Your task to perform on an android device: Add usb-a to the cart on target, then select checkout. Image 0: 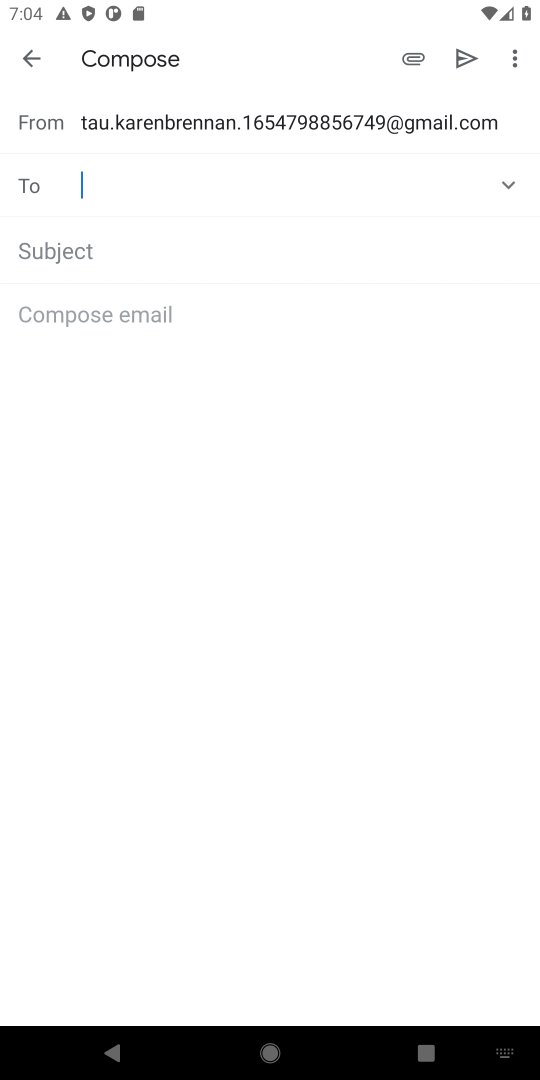
Step 0: press home button
Your task to perform on an android device: Add usb-a to the cart on target, then select checkout. Image 1: 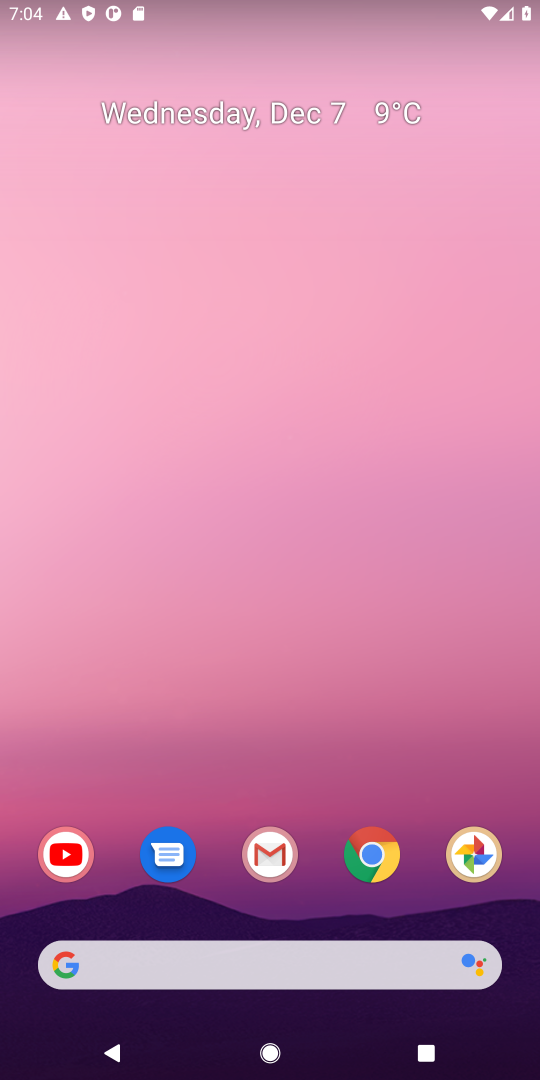
Step 1: click (199, 981)
Your task to perform on an android device: Add usb-a to the cart on target, then select checkout. Image 2: 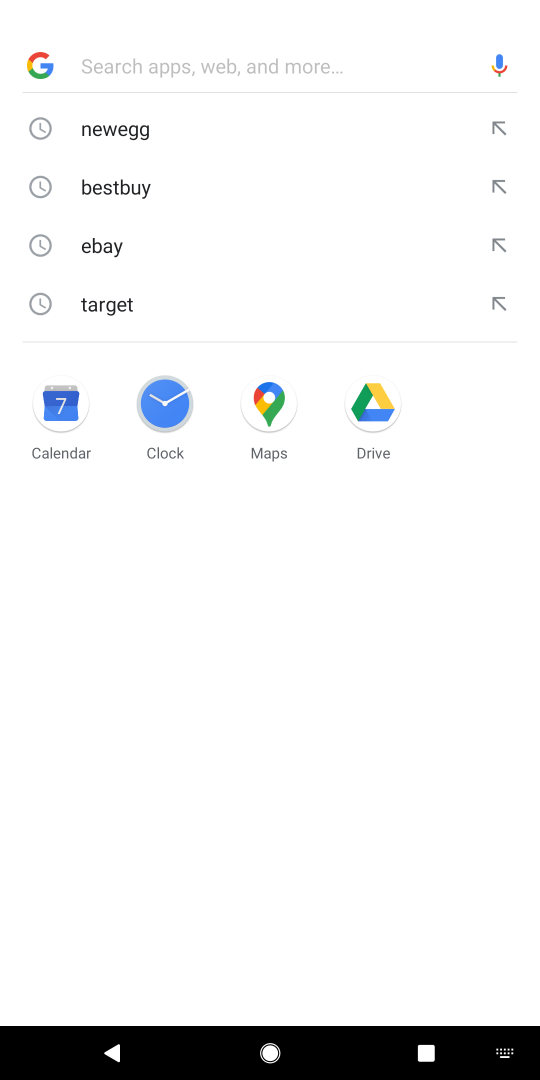
Step 2: type "target"
Your task to perform on an android device: Add usb-a to the cart on target, then select checkout. Image 3: 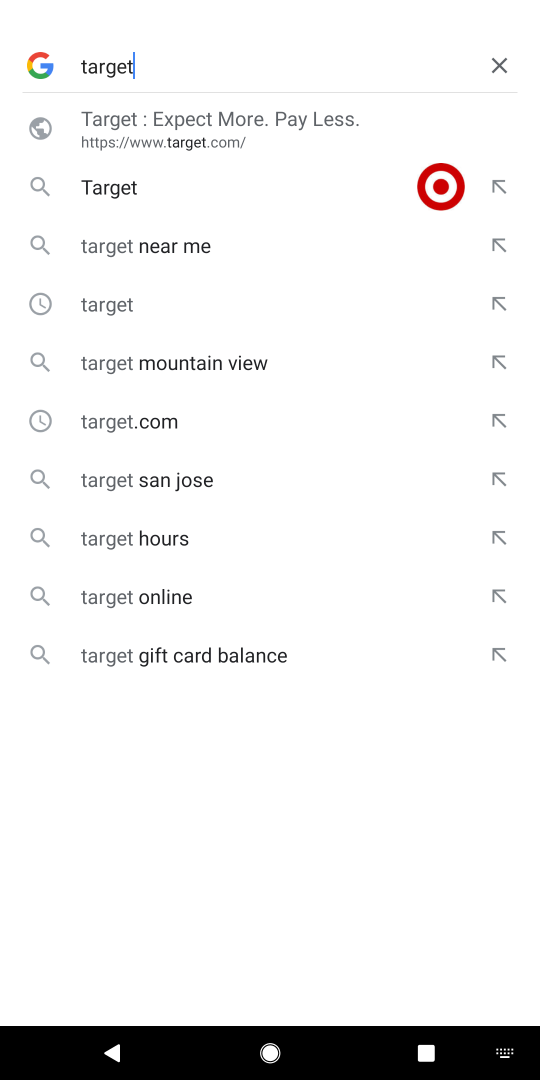
Step 3: click (146, 123)
Your task to perform on an android device: Add usb-a to the cart on target, then select checkout. Image 4: 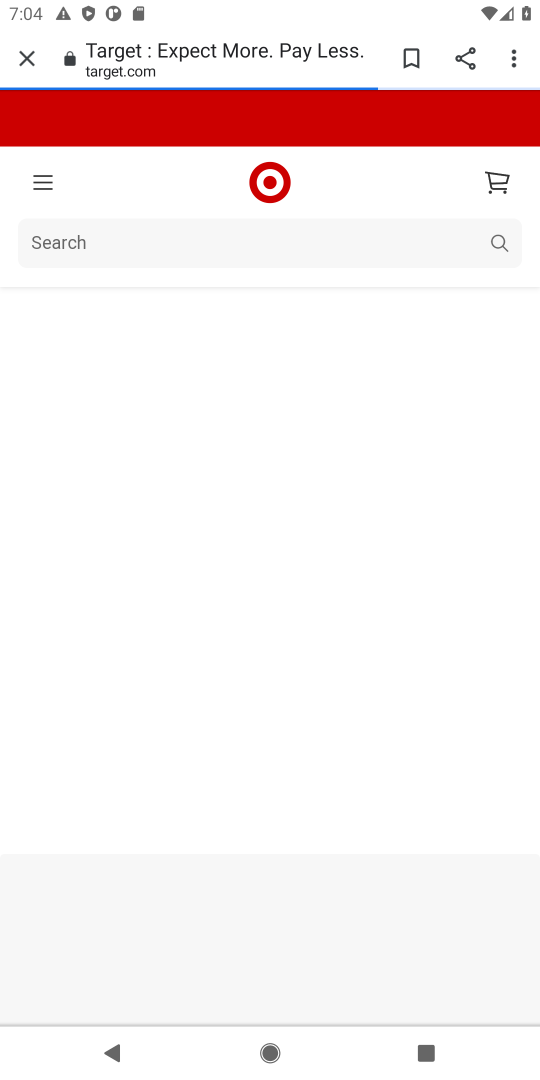
Step 4: click (203, 230)
Your task to perform on an android device: Add usb-a to the cart on target, then select checkout. Image 5: 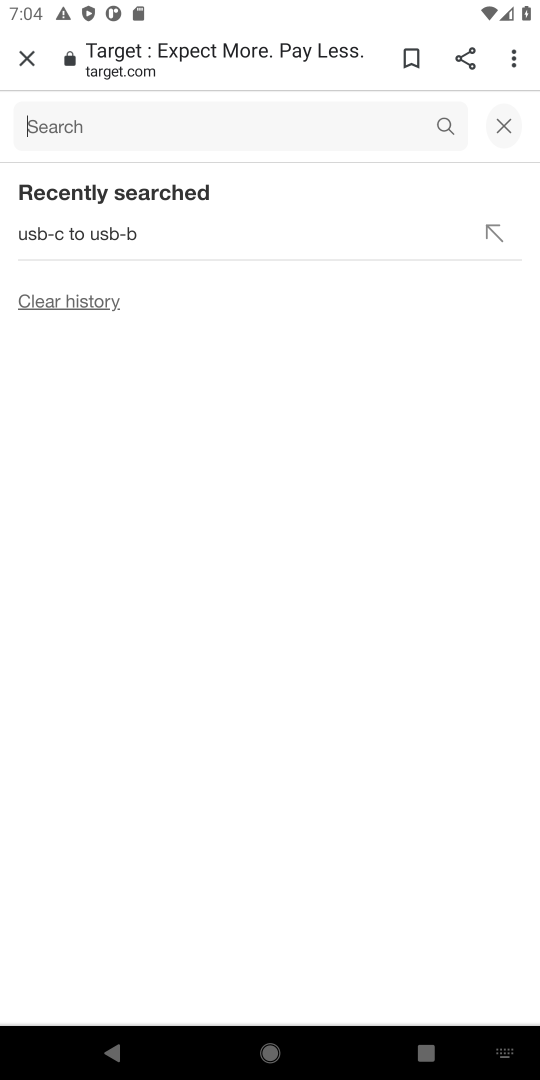
Step 5: type "usb-a"
Your task to perform on an android device: Add usb-a to the cart on target, then select checkout. Image 6: 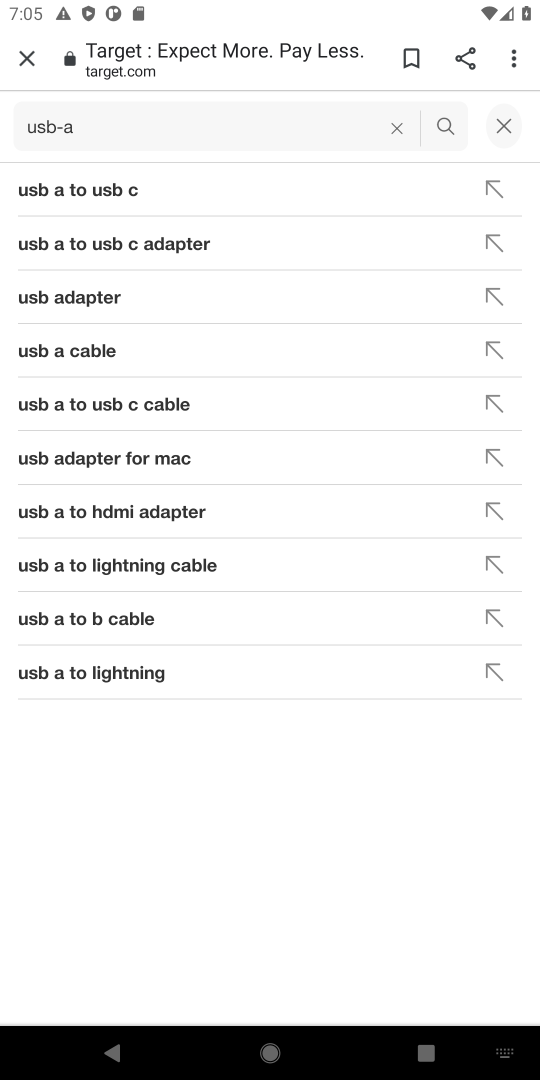
Step 6: click (458, 131)
Your task to perform on an android device: Add usb-a to the cart on target, then select checkout. Image 7: 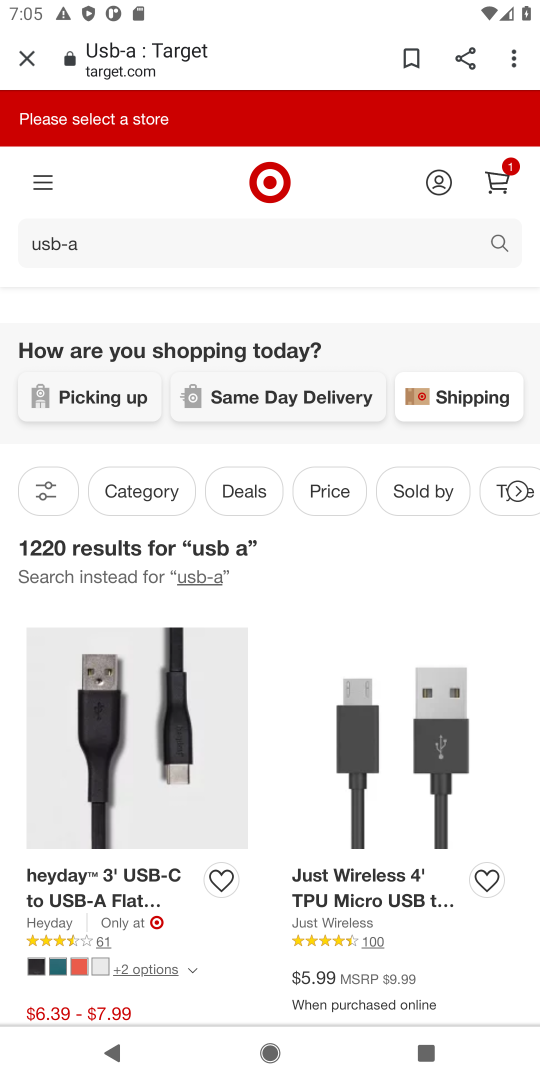
Step 7: click (177, 735)
Your task to perform on an android device: Add usb-a to the cart on target, then select checkout. Image 8: 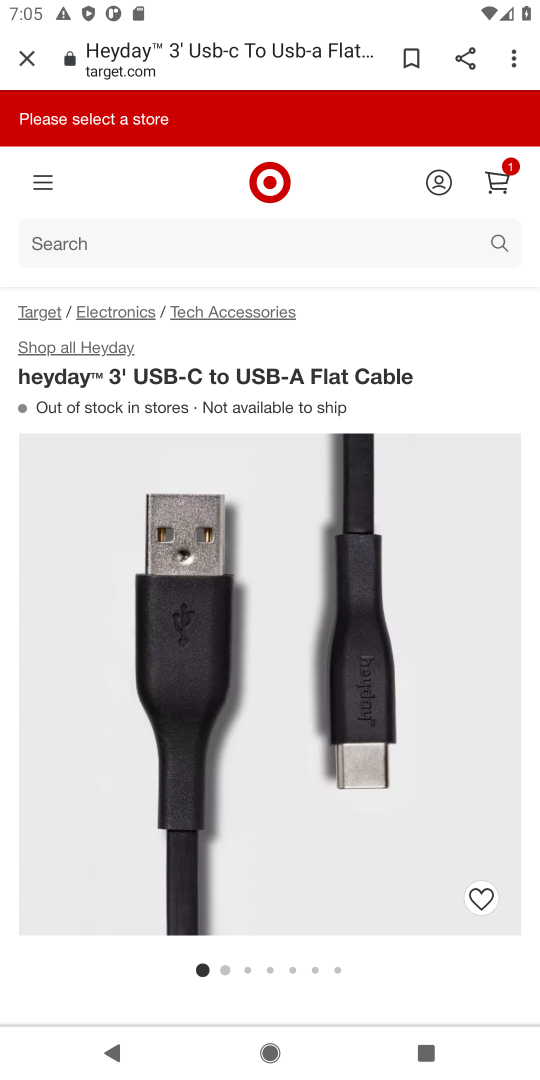
Step 8: drag from (194, 880) to (198, 442)
Your task to perform on an android device: Add usb-a to the cart on target, then select checkout. Image 9: 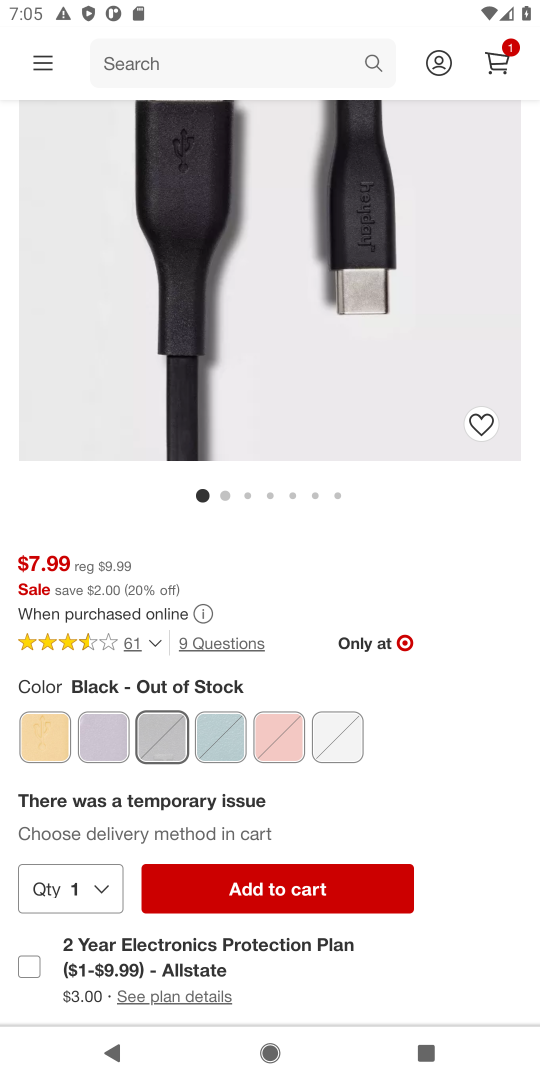
Step 9: click (258, 903)
Your task to perform on an android device: Add usb-a to the cart on target, then select checkout. Image 10: 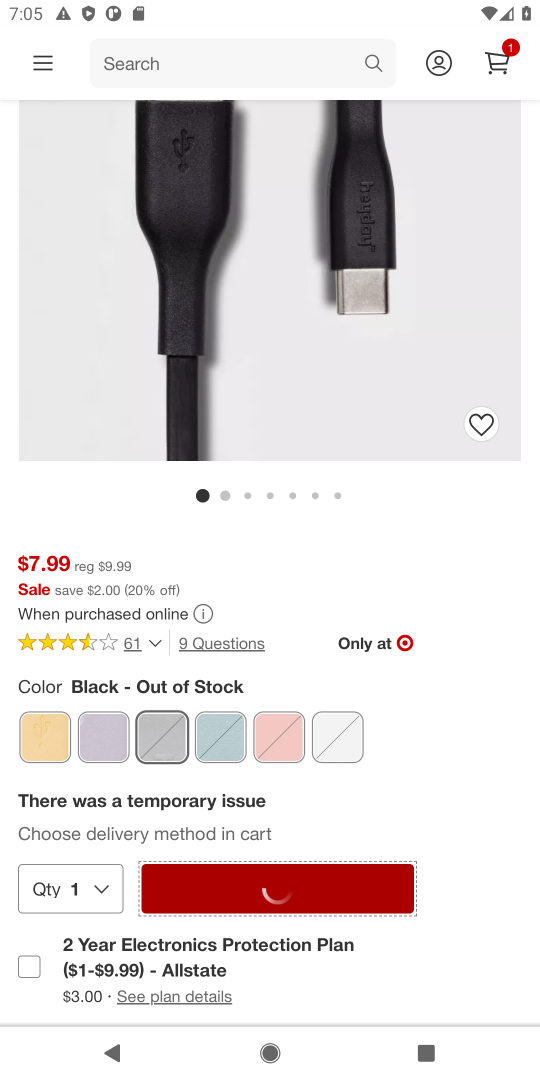
Step 10: task complete